Your task to perform on an android device: Open location settings Image 0: 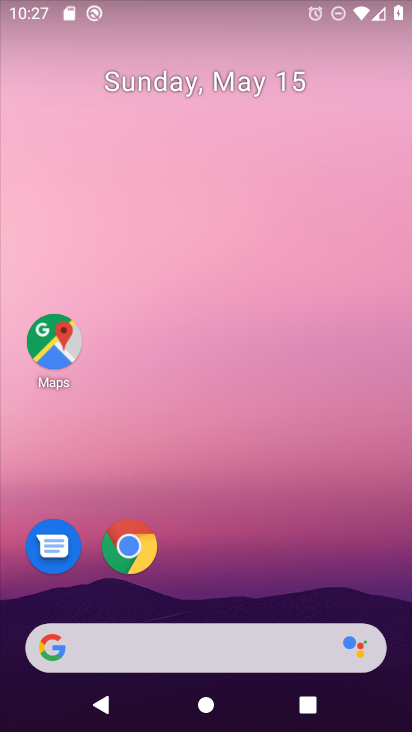
Step 0: drag from (287, 558) to (370, 135)
Your task to perform on an android device: Open location settings Image 1: 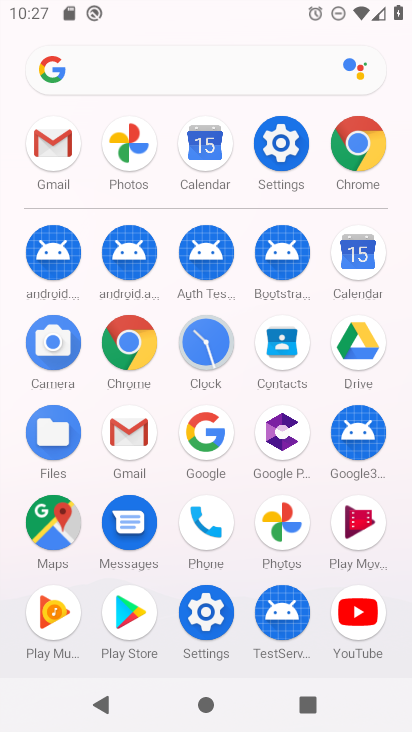
Step 1: click (297, 134)
Your task to perform on an android device: Open location settings Image 2: 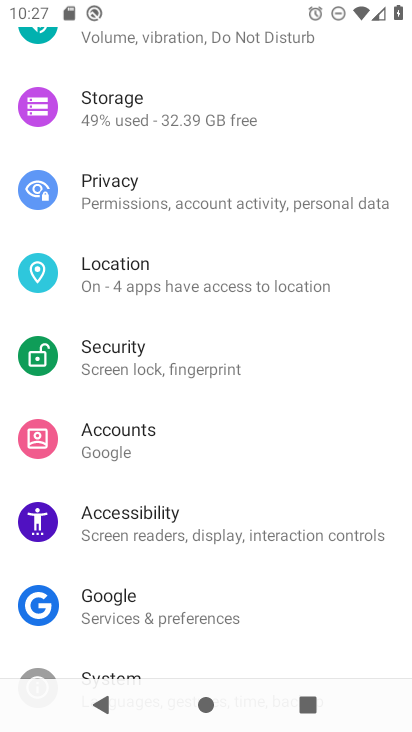
Step 2: click (203, 271)
Your task to perform on an android device: Open location settings Image 3: 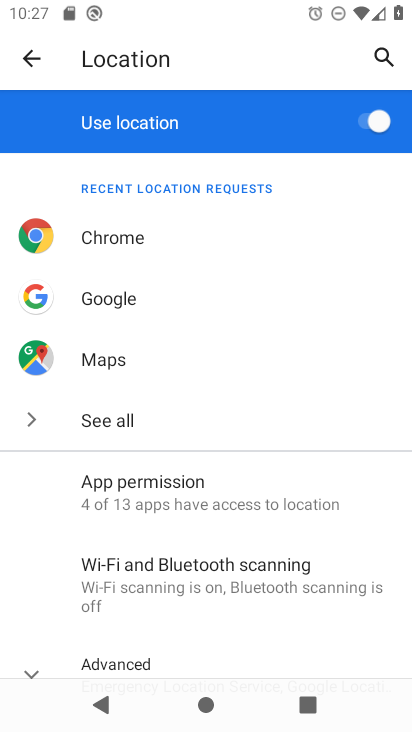
Step 3: task complete